Your task to perform on an android device: turn off priority inbox in the gmail app Image 0: 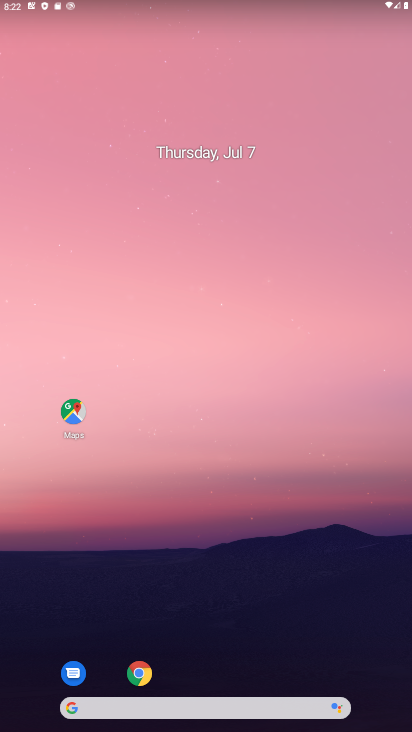
Step 0: press home button
Your task to perform on an android device: turn off priority inbox in the gmail app Image 1: 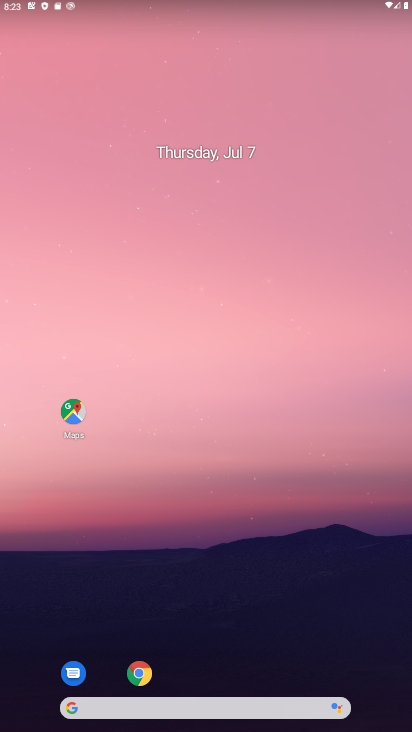
Step 1: drag from (224, 653) to (189, 4)
Your task to perform on an android device: turn off priority inbox in the gmail app Image 2: 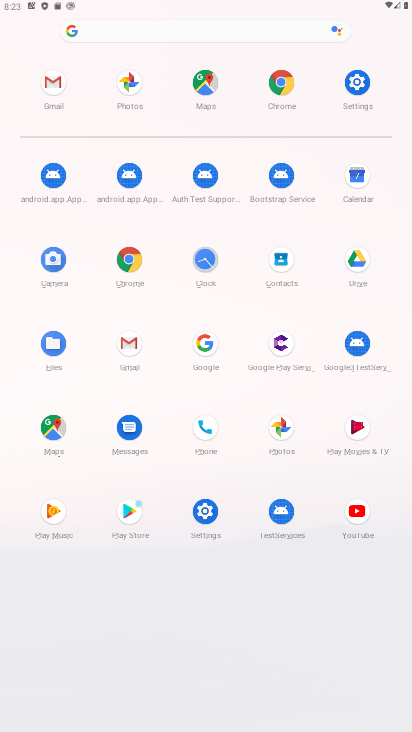
Step 2: click (127, 341)
Your task to perform on an android device: turn off priority inbox in the gmail app Image 3: 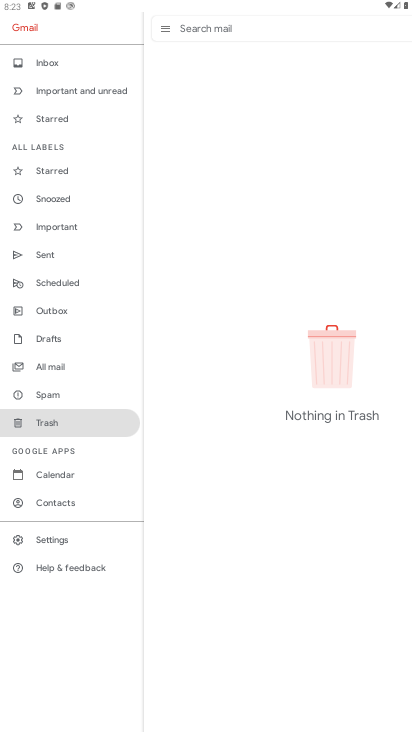
Step 3: click (53, 540)
Your task to perform on an android device: turn off priority inbox in the gmail app Image 4: 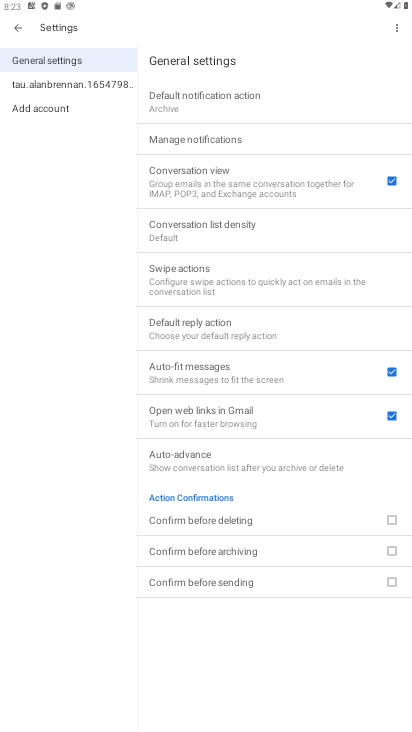
Step 4: click (60, 84)
Your task to perform on an android device: turn off priority inbox in the gmail app Image 5: 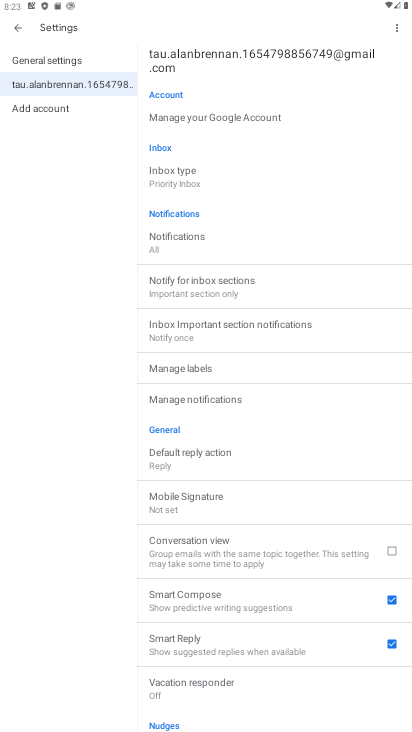
Step 5: click (165, 177)
Your task to perform on an android device: turn off priority inbox in the gmail app Image 6: 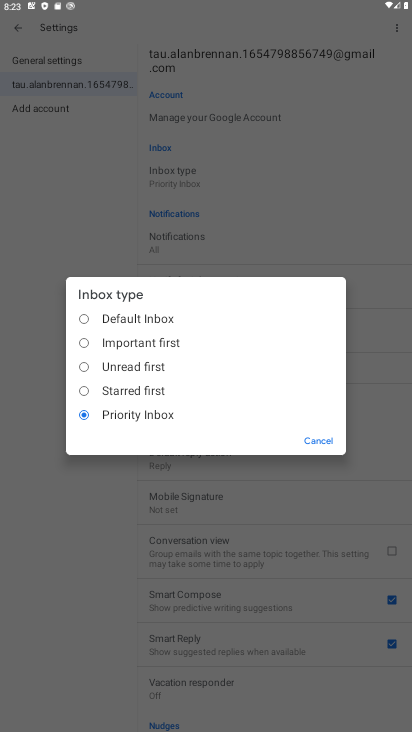
Step 6: click (75, 311)
Your task to perform on an android device: turn off priority inbox in the gmail app Image 7: 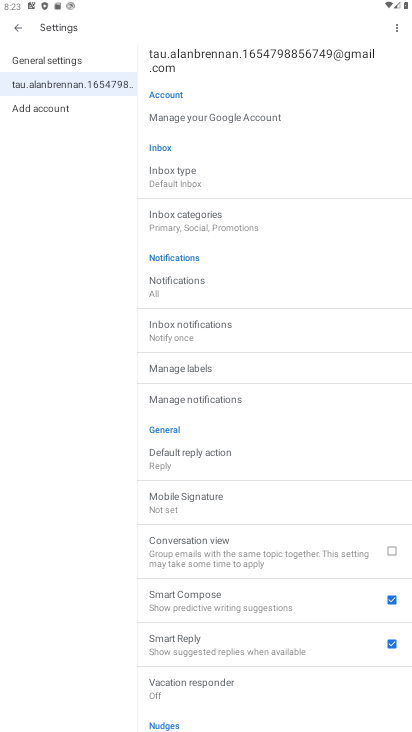
Step 7: task complete